Your task to perform on an android device: Look up the best rated drill on Lowes. Image 0: 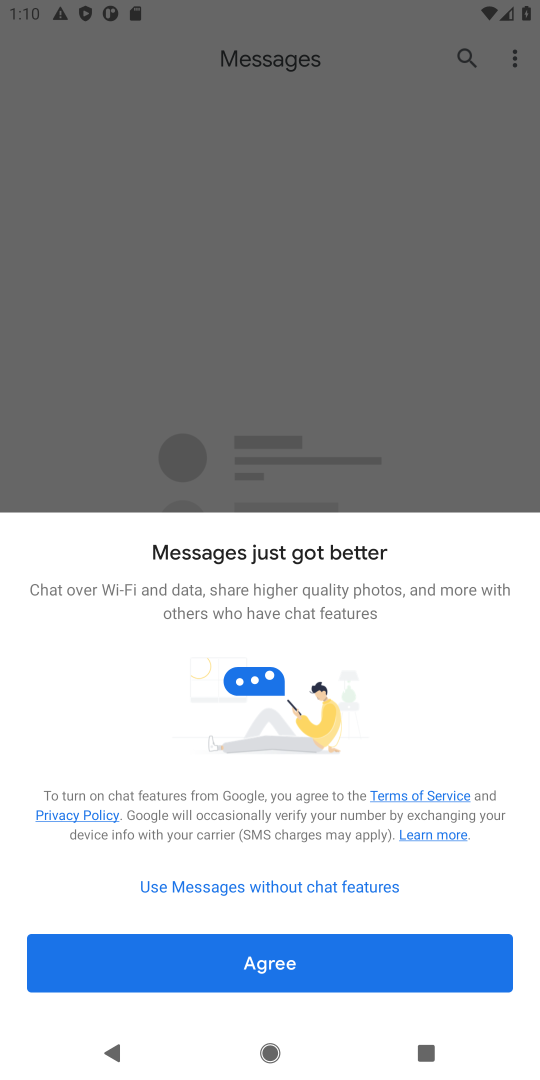
Step 0: press home button
Your task to perform on an android device: Look up the best rated drill on Lowes. Image 1: 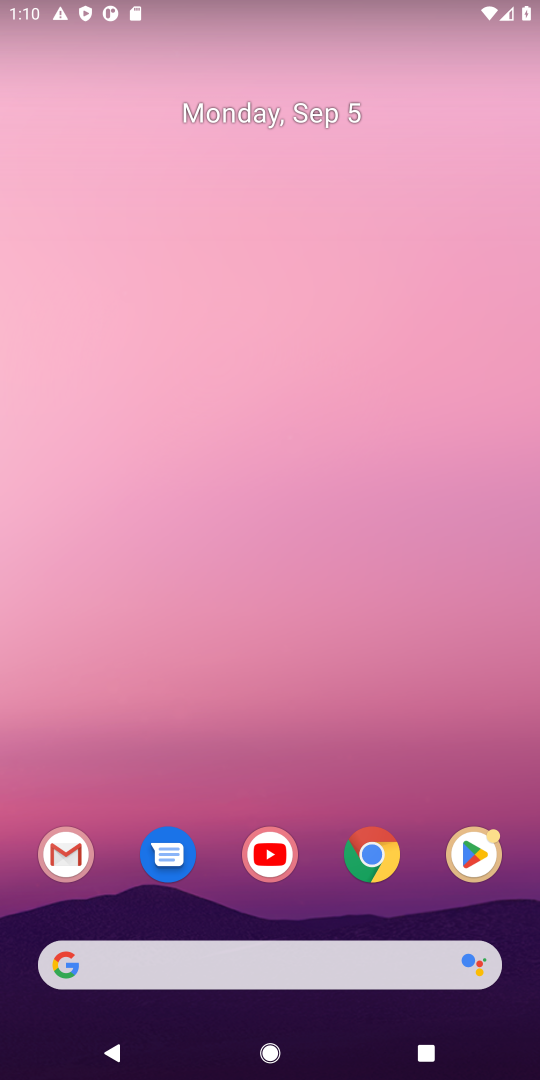
Step 1: click (371, 968)
Your task to perform on an android device: Look up the best rated drill on Lowes. Image 2: 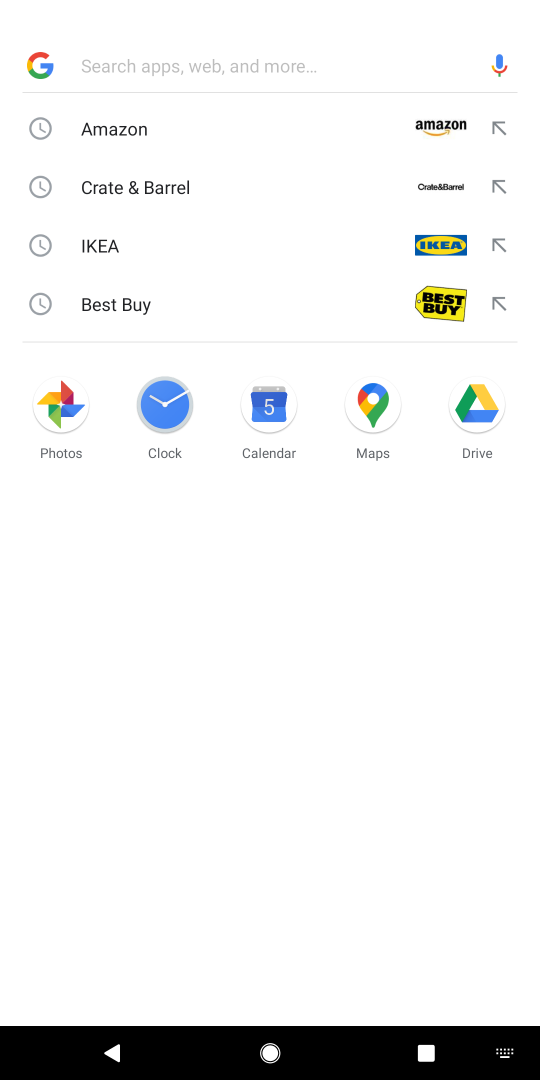
Step 2: type "lowes "
Your task to perform on an android device: Look up the best rated drill on Lowes. Image 3: 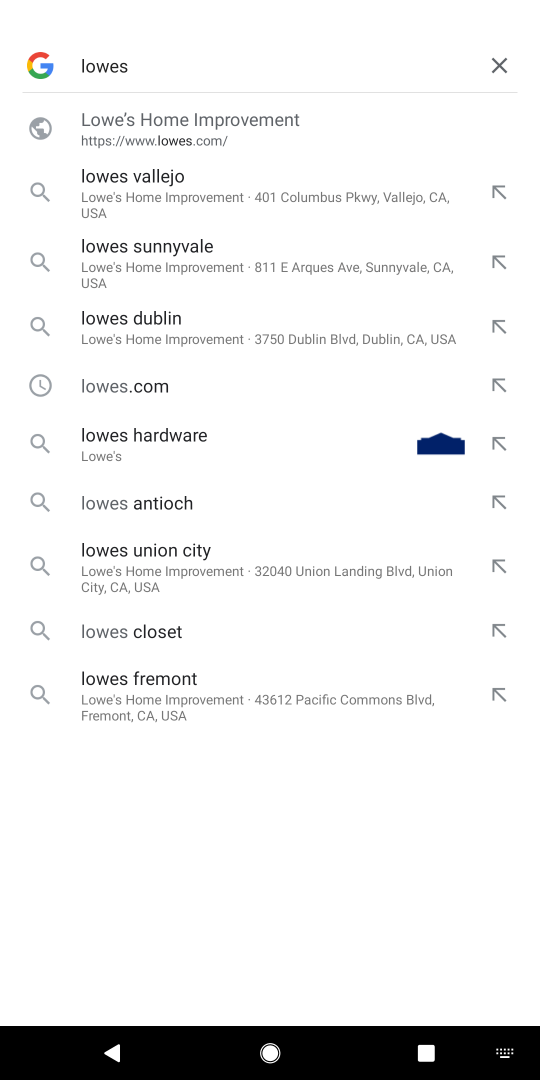
Step 3: press enter
Your task to perform on an android device: Look up the best rated drill on Lowes. Image 4: 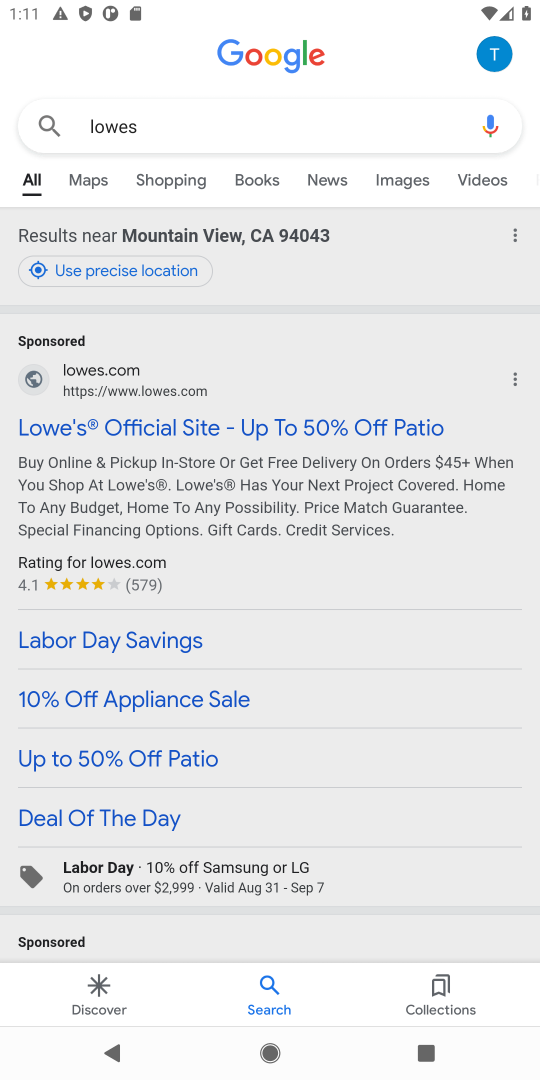
Step 4: click (316, 425)
Your task to perform on an android device: Look up the best rated drill on Lowes. Image 5: 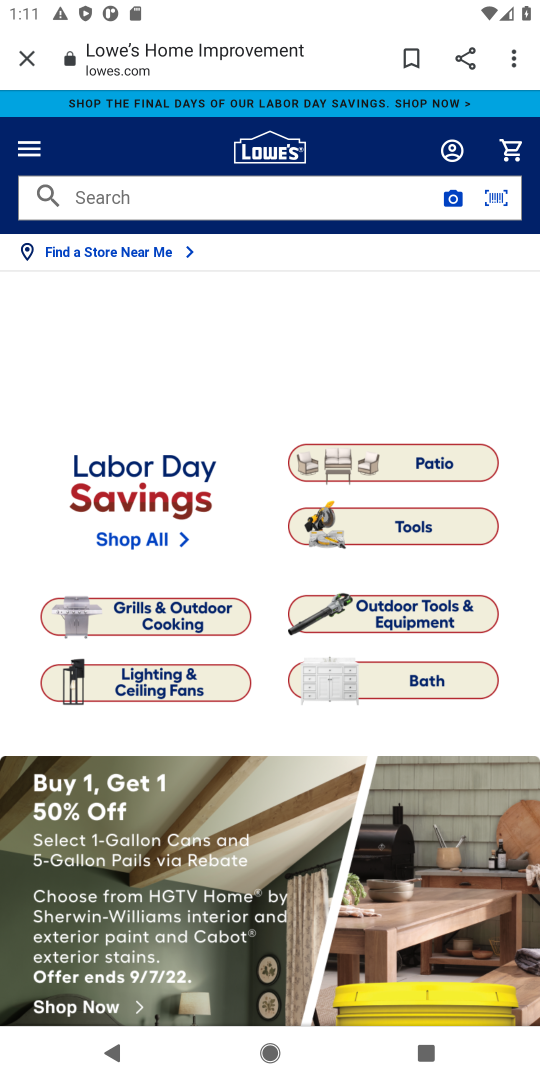
Step 5: click (216, 185)
Your task to perform on an android device: Look up the best rated drill on Lowes. Image 6: 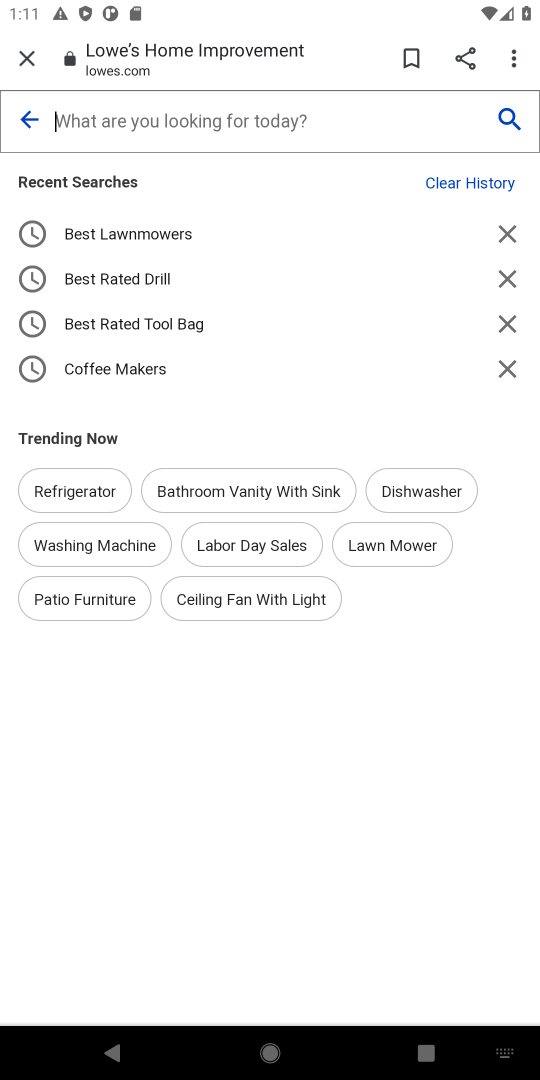
Step 6: type "best rated"
Your task to perform on an android device: Look up the best rated drill on Lowes. Image 7: 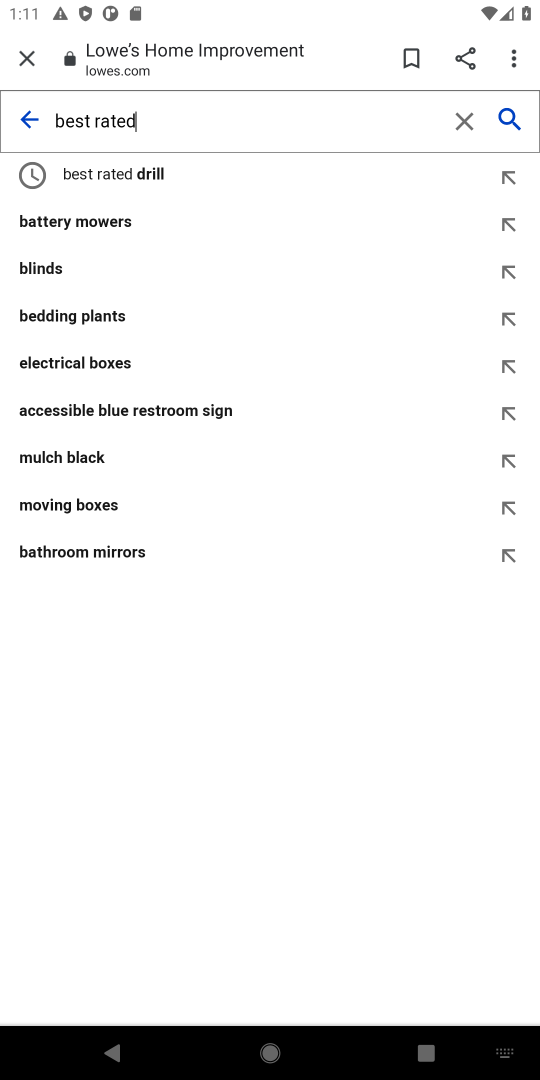
Step 7: press enter
Your task to perform on an android device: Look up the best rated drill on Lowes. Image 8: 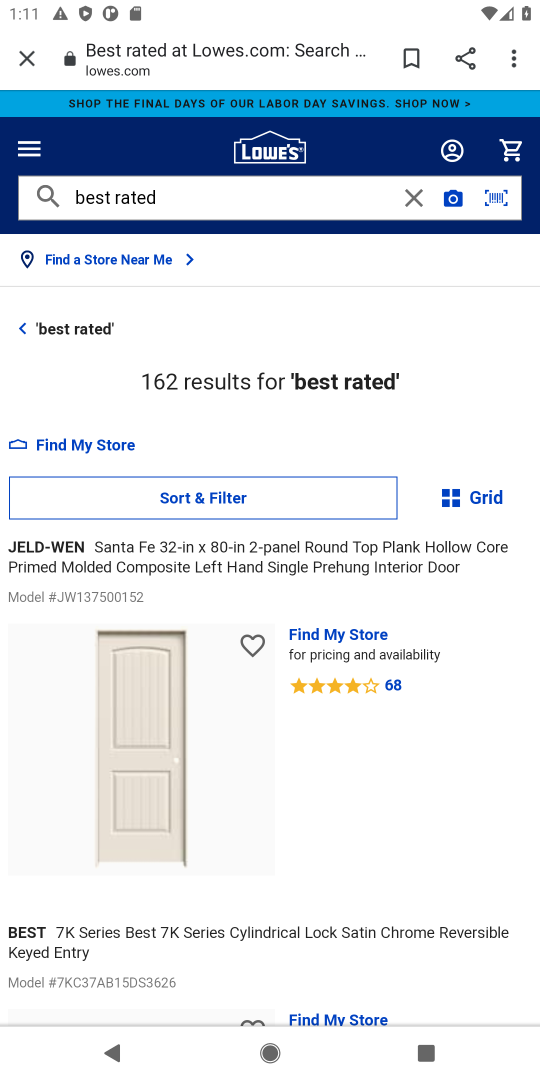
Step 8: click (262, 183)
Your task to perform on an android device: Look up the best rated drill on Lowes. Image 9: 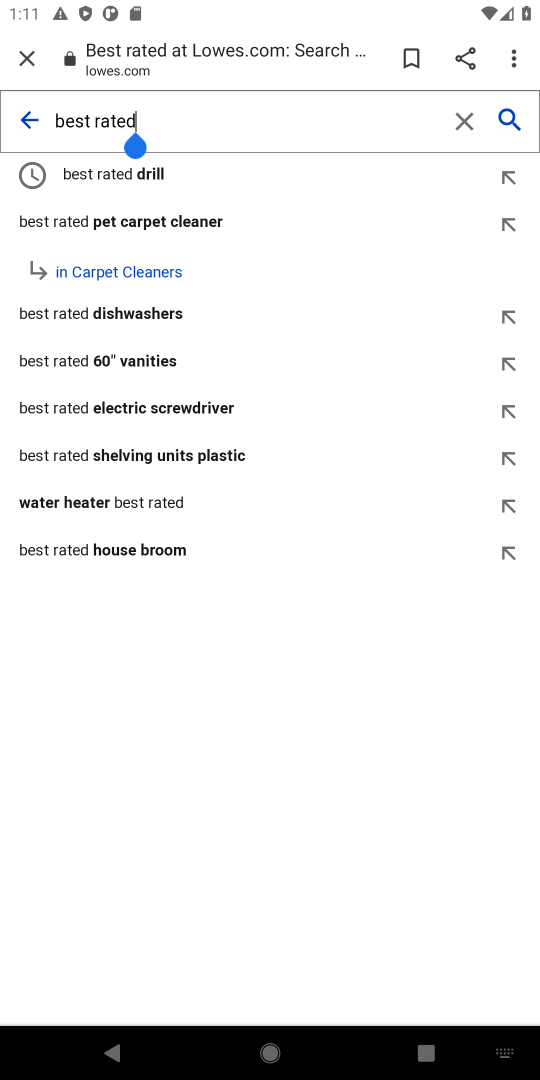
Step 9: click (112, 171)
Your task to perform on an android device: Look up the best rated drill on Lowes. Image 10: 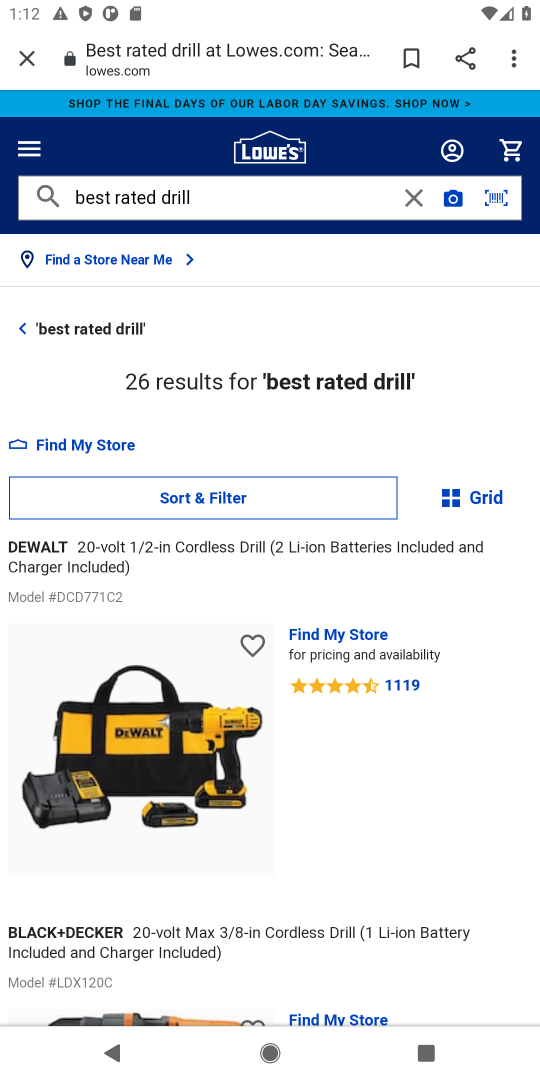
Step 10: task complete